Your task to perform on an android device: toggle notification dots Image 0: 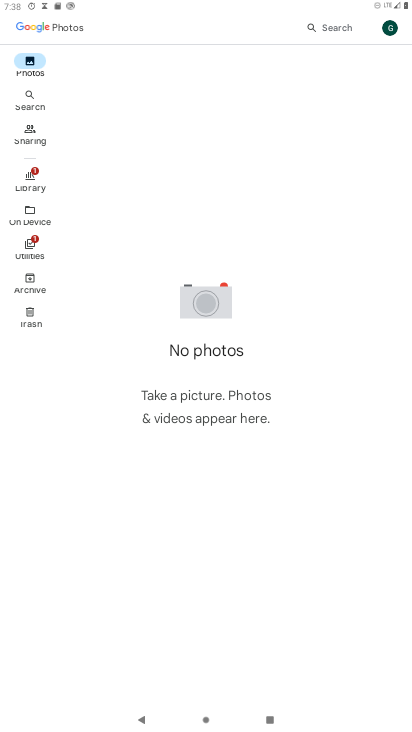
Step 0: drag from (359, 646) to (365, 591)
Your task to perform on an android device: toggle notification dots Image 1: 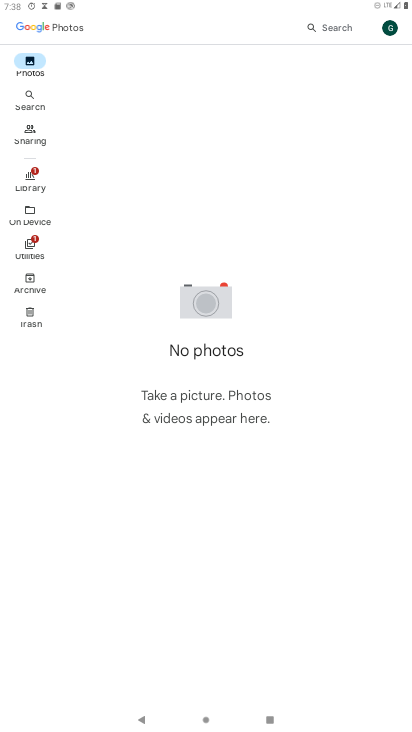
Step 1: press home button
Your task to perform on an android device: toggle notification dots Image 2: 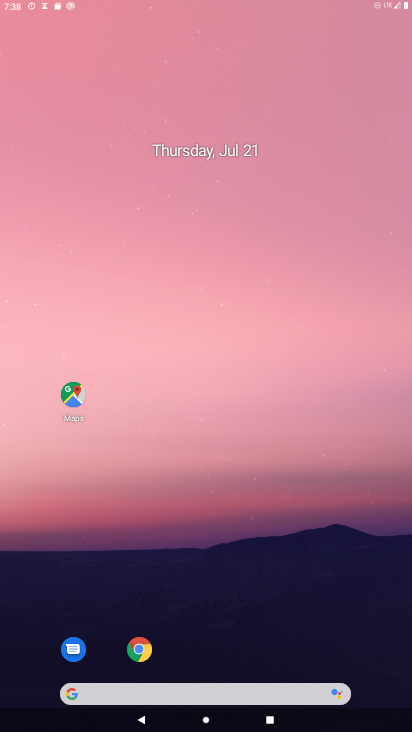
Step 2: drag from (391, 651) to (254, 47)
Your task to perform on an android device: toggle notification dots Image 3: 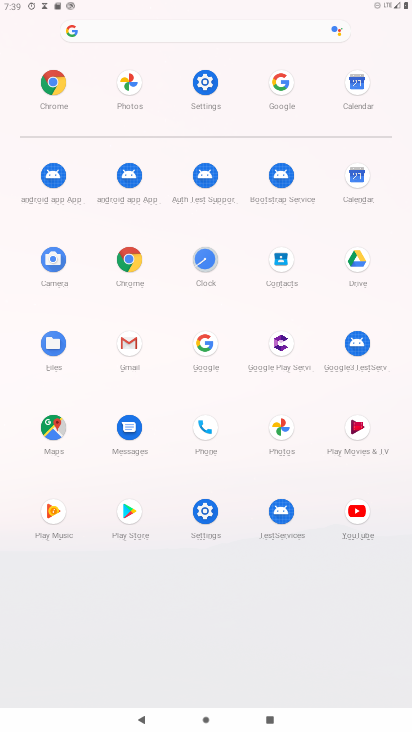
Step 3: click (204, 500)
Your task to perform on an android device: toggle notification dots Image 4: 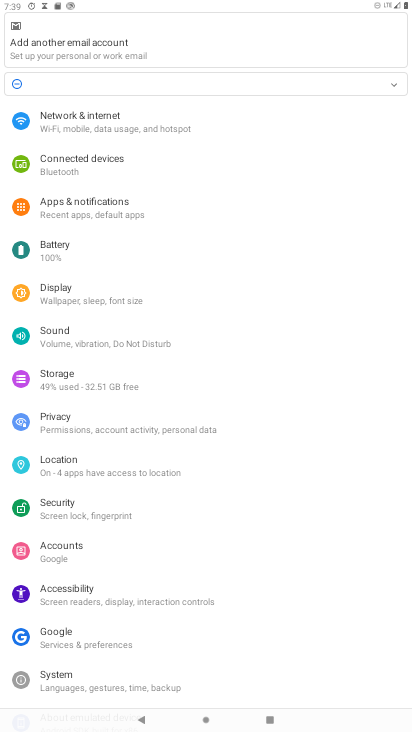
Step 4: click (115, 221)
Your task to perform on an android device: toggle notification dots Image 5: 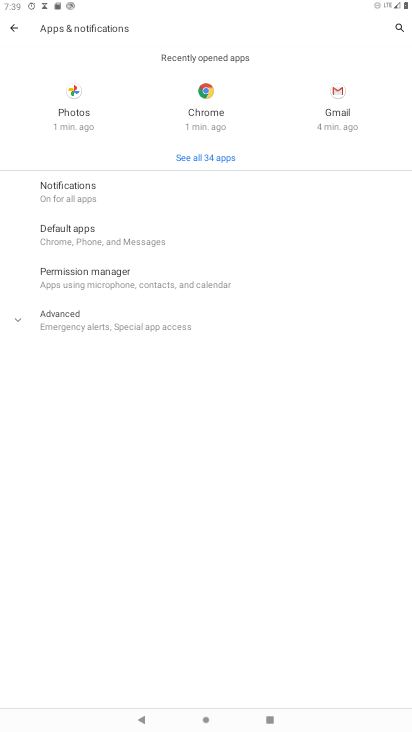
Step 5: click (103, 195)
Your task to perform on an android device: toggle notification dots Image 6: 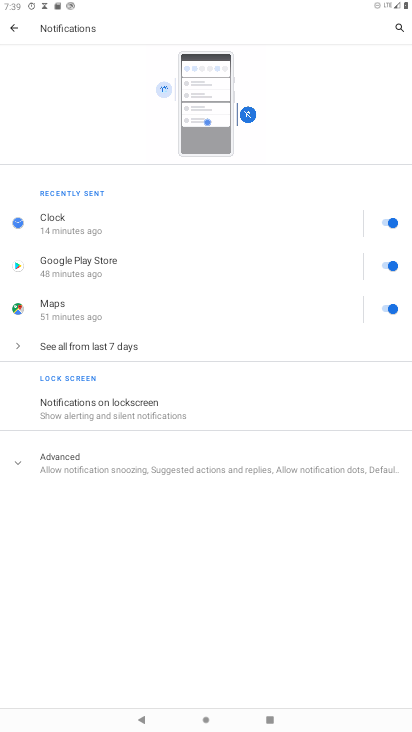
Step 6: click (70, 467)
Your task to perform on an android device: toggle notification dots Image 7: 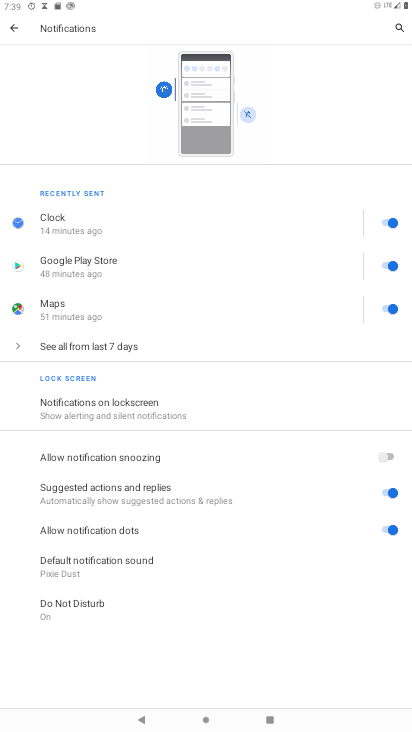
Step 7: click (178, 536)
Your task to perform on an android device: toggle notification dots Image 8: 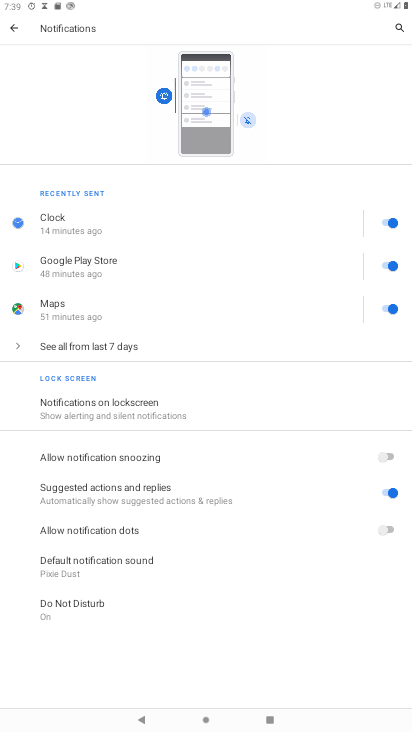
Step 8: task complete